Your task to perform on an android device: turn off javascript in the chrome app Image 0: 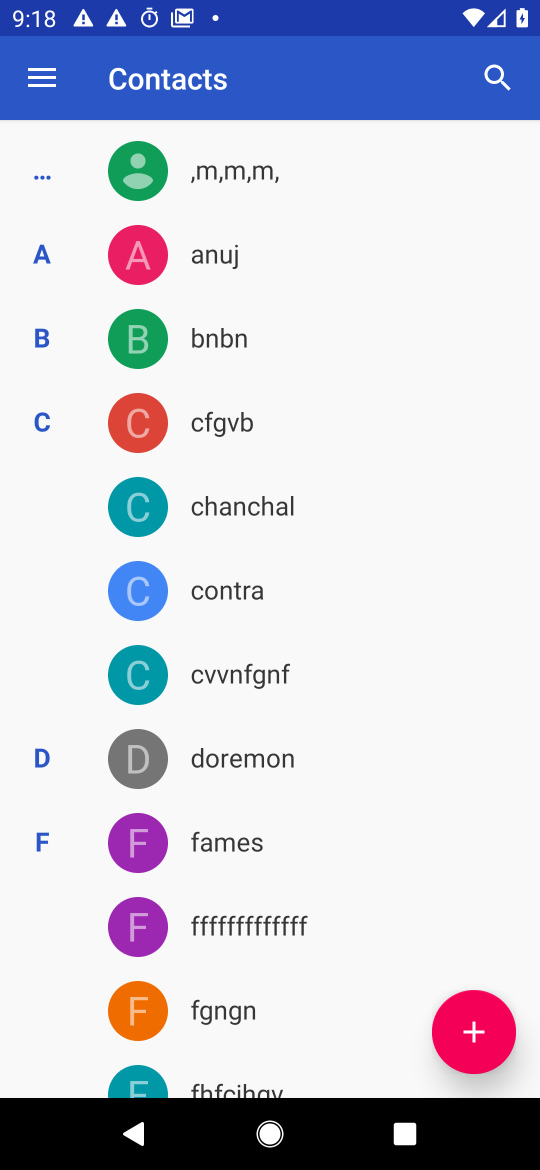
Step 0: press back button
Your task to perform on an android device: turn off javascript in the chrome app Image 1: 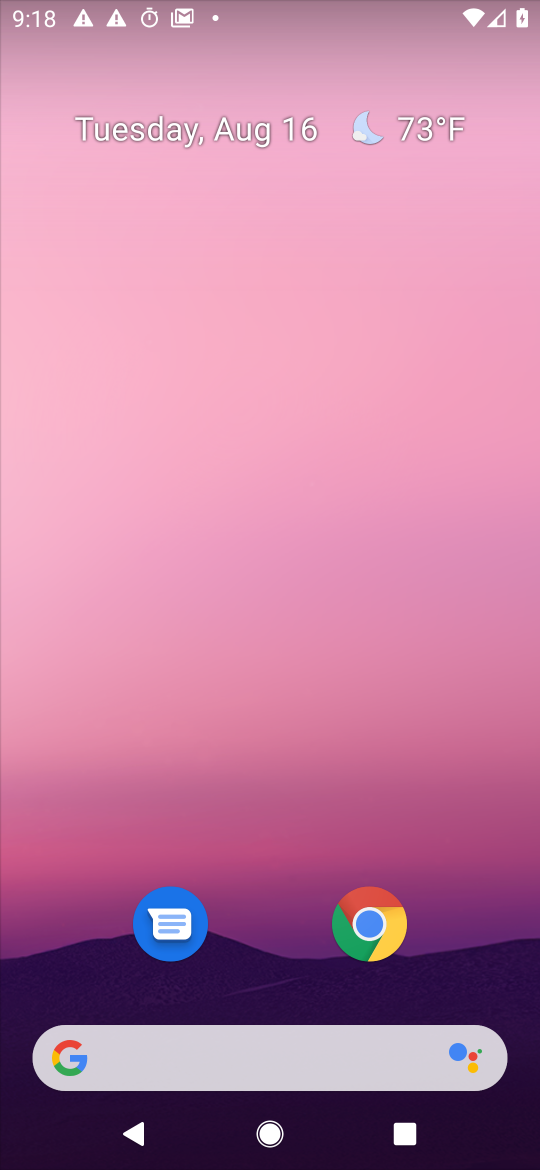
Step 1: click (374, 918)
Your task to perform on an android device: turn off javascript in the chrome app Image 2: 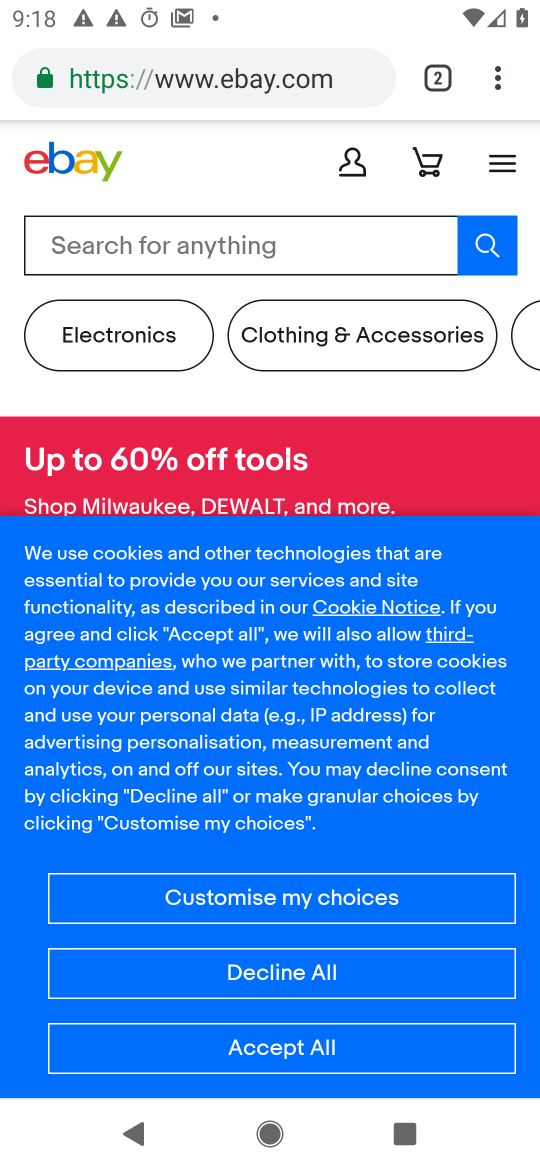
Step 2: drag from (502, 81) to (279, 948)
Your task to perform on an android device: turn off javascript in the chrome app Image 3: 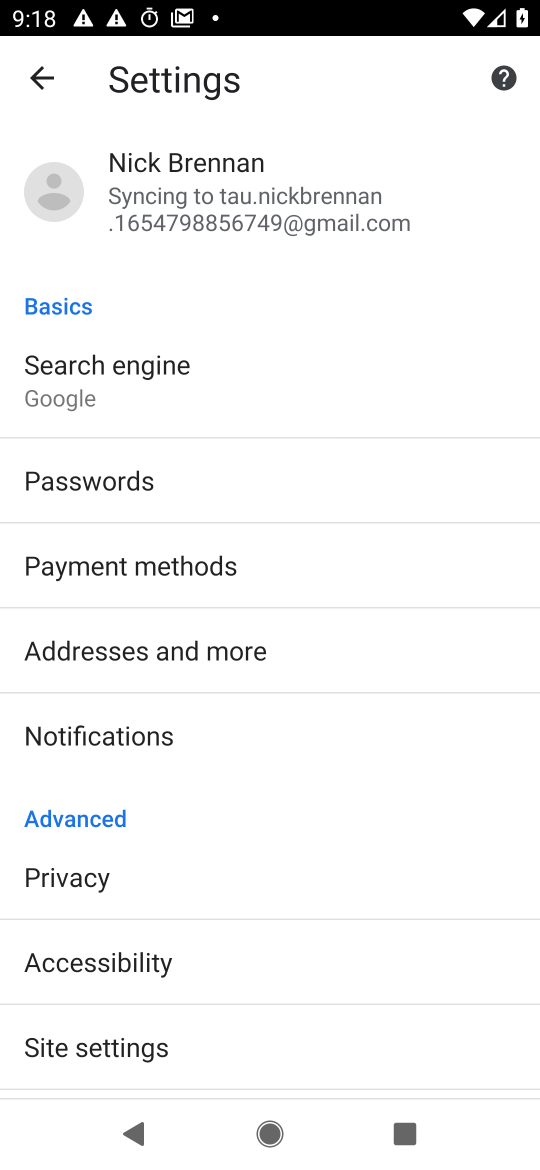
Step 3: drag from (184, 1012) to (323, 283)
Your task to perform on an android device: turn off javascript in the chrome app Image 4: 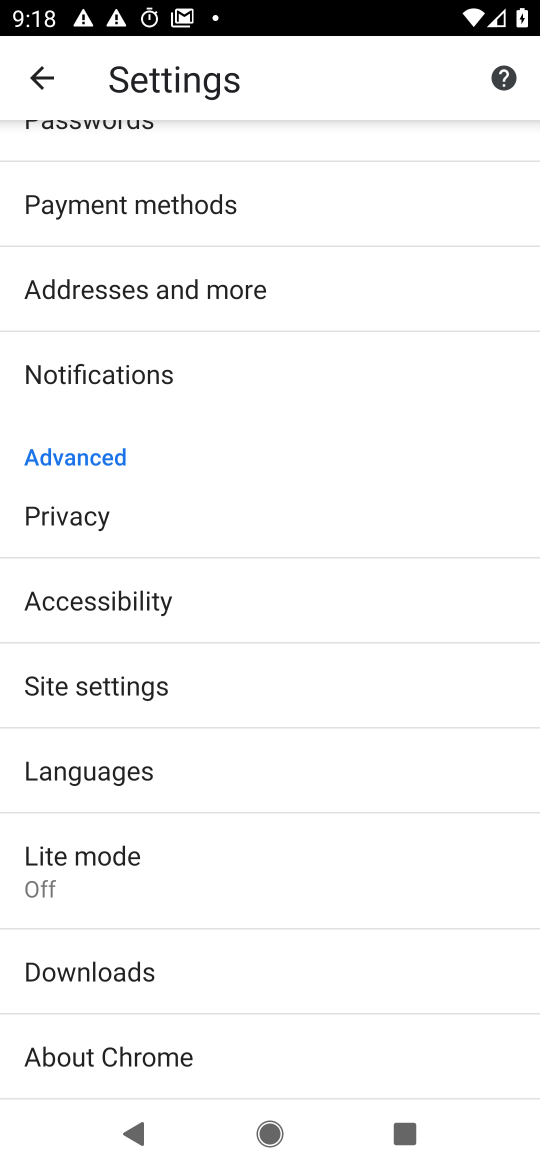
Step 4: click (118, 673)
Your task to perform on an android device: turn off javascript in the chrome app Image 5: 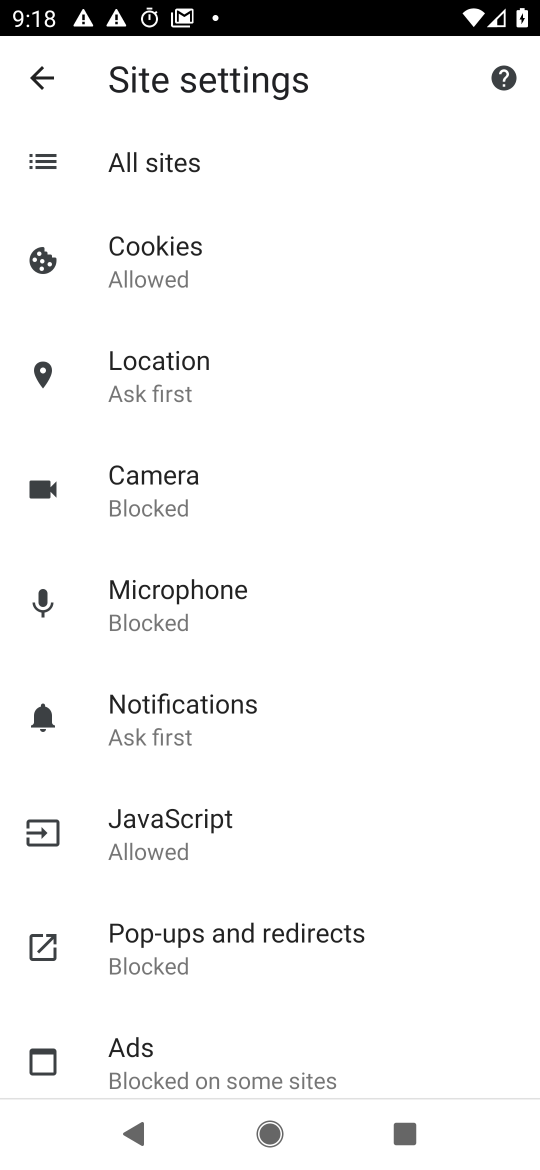
Step 5: click (178, 834)
Your task to perform on an android device: turn off javascript in the chrome app Image 6: 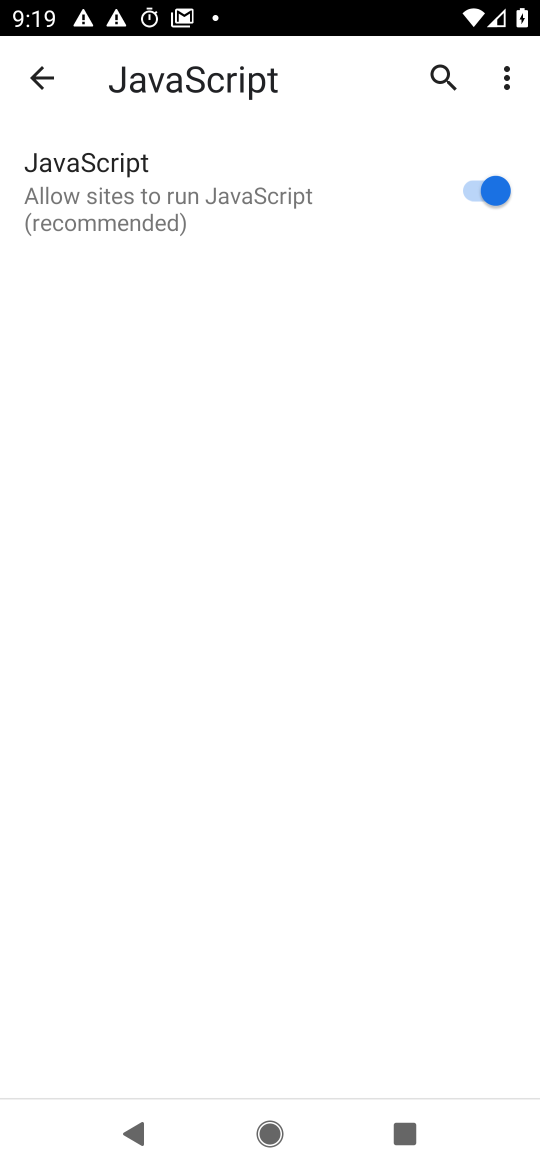
Step 6: click (503, 189)
Your task to perform on an android device: turn off javascript in the chrome app Image 7: 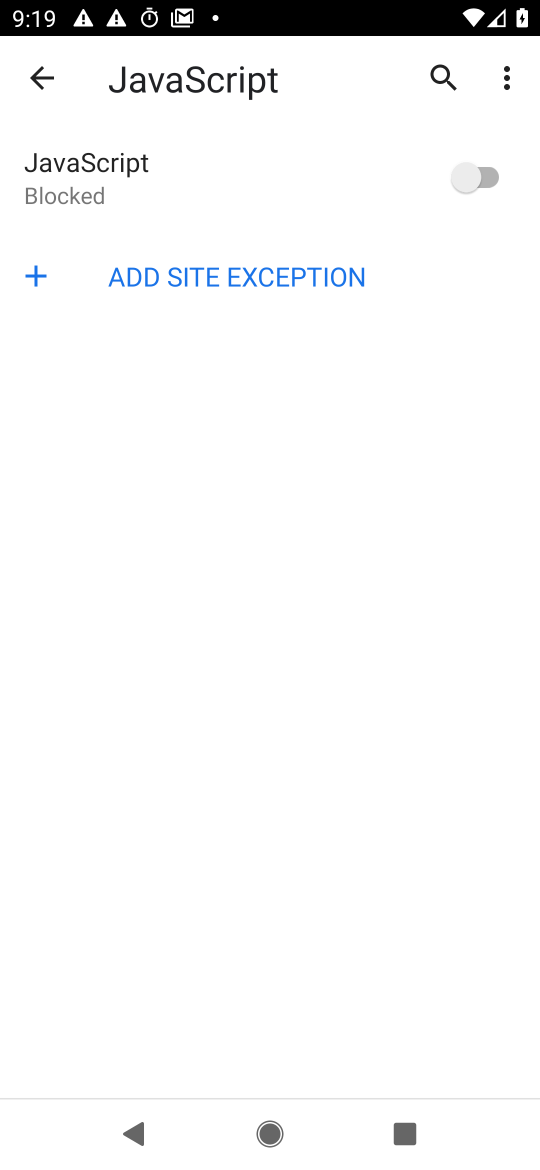
Step 7: task complete